Your task to perform on an android device: Open privacy settings Image 0: 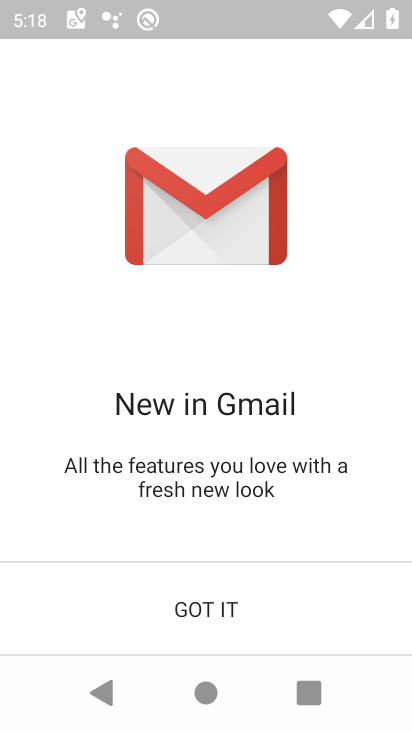
Step 0: click (206, 611)
Your task to perform on an android device: Open privacy settings Image 1: 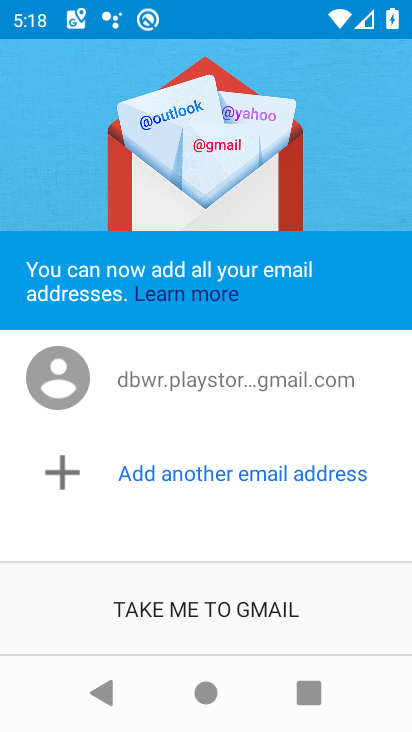
Step 1: press home button
Your task to perform on an android device: Open privacy settings Image 2: 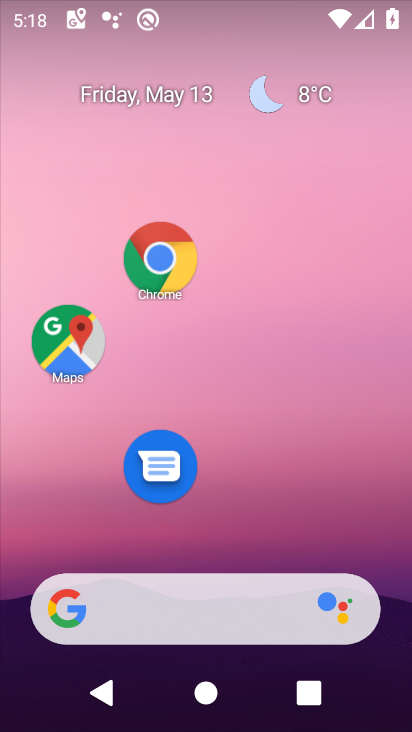
Step 2: drag from (312, 578) to (243, 150)
Your task to perform on an android device: Open privacy settings Image 3: 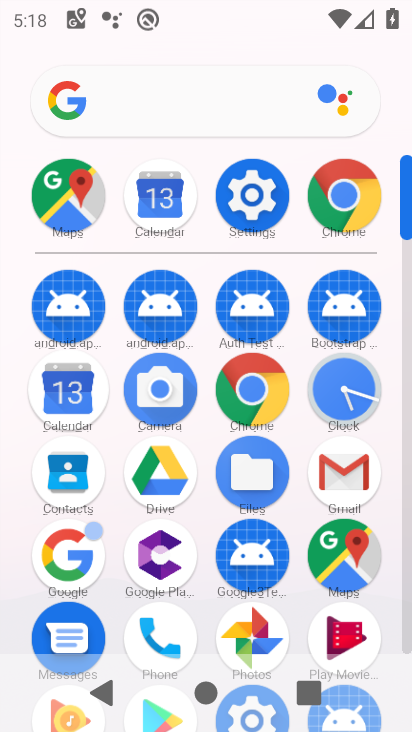
Step 3: click (251, 191)
Your task to perform on an android device: Open privacy settings Image 4: 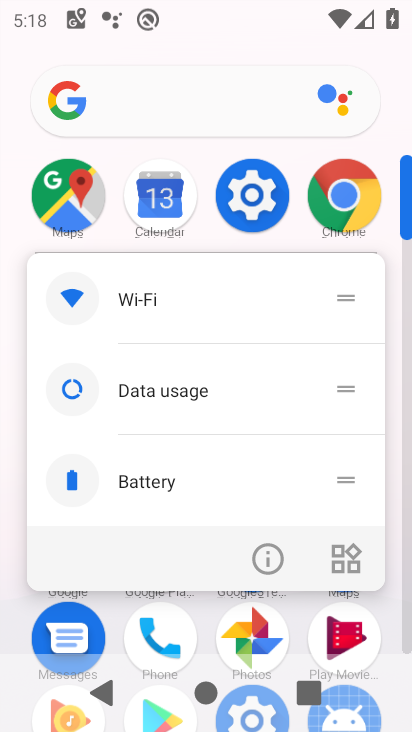
Step 4: click (241, 207)
Your task to perform on an android device: Open privacy settings Image 5: 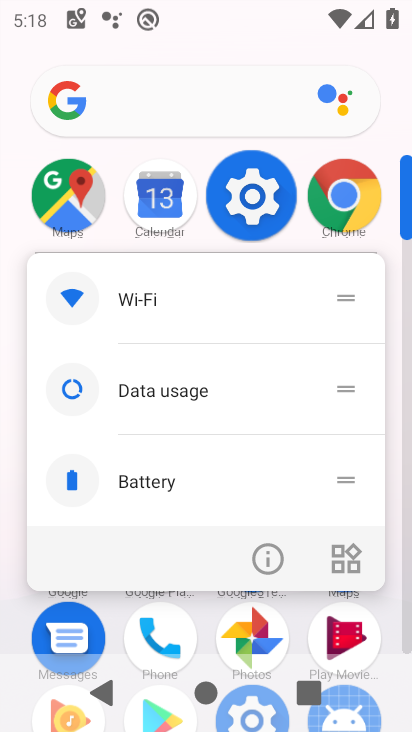
Step 5: click (249, 206)
Your task to perform on an android device: Open privacy settings Image 6: 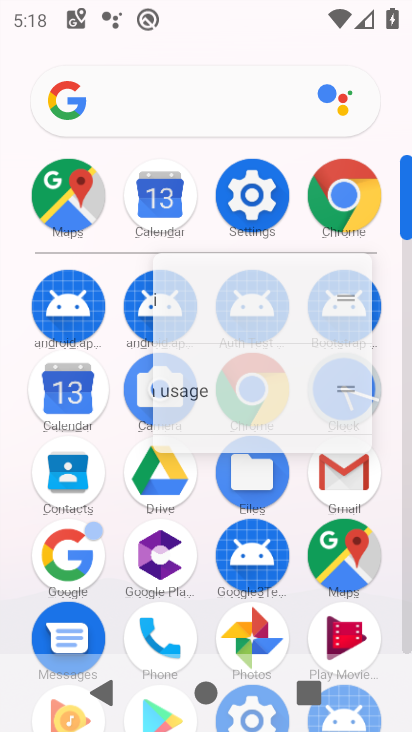
Step 6: click (253, 206)
Your task to perform on an android device: Open privacy settings Image 7: 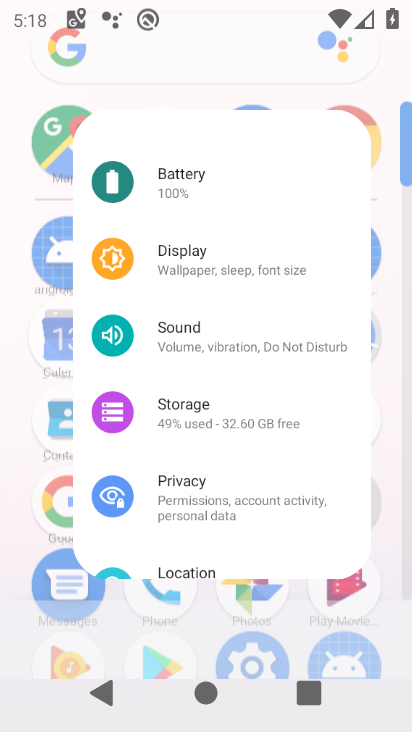
Step 7: click (253, 205)
Your task to perform on an android device: Open privacy settings Image 8: 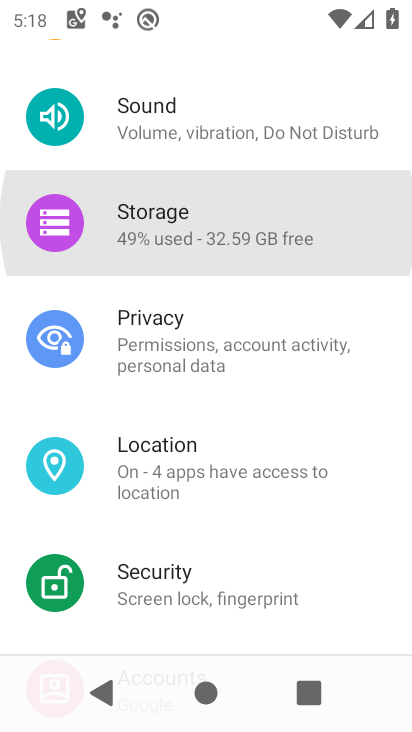
Step 8: click (258, 201)
Your task to perform on an android device: Open privacy settings Image 9: 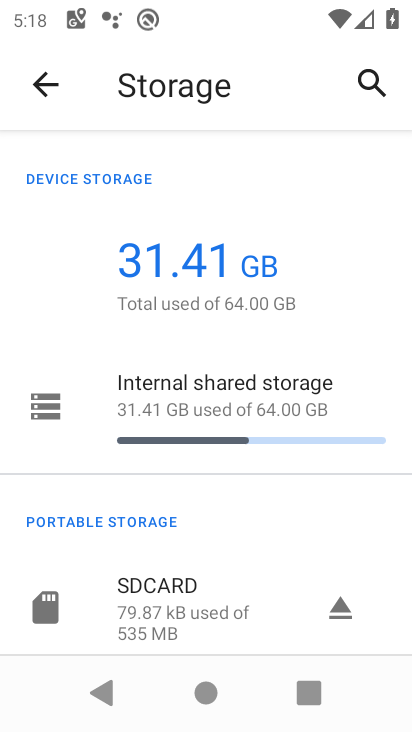
Step 9: click (42, 80)
Your task to perform on an android device: Open privacy settings Image 10: 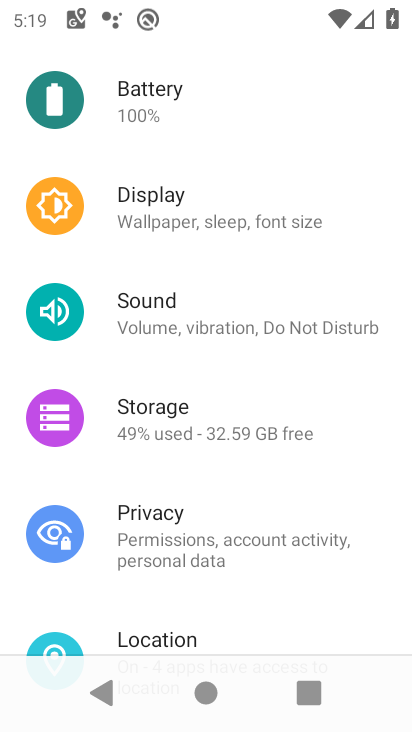
Step 10: click (169, 511)
Your task to perform on an android device: Open privacy settings Image 11: 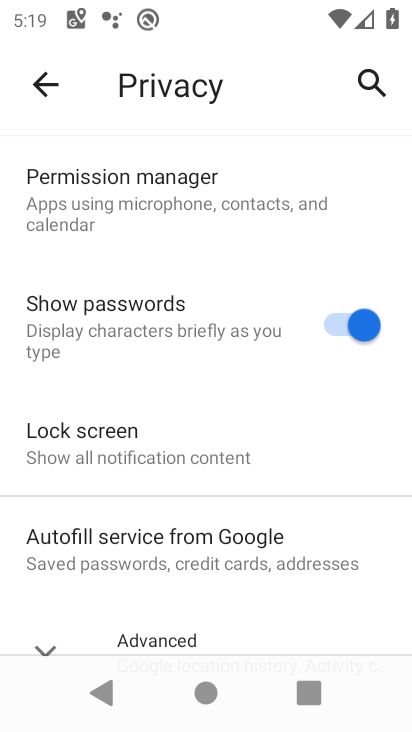
Step 11: task complete